Your task to perform on an android device: Turn on the flashlight Image 0: 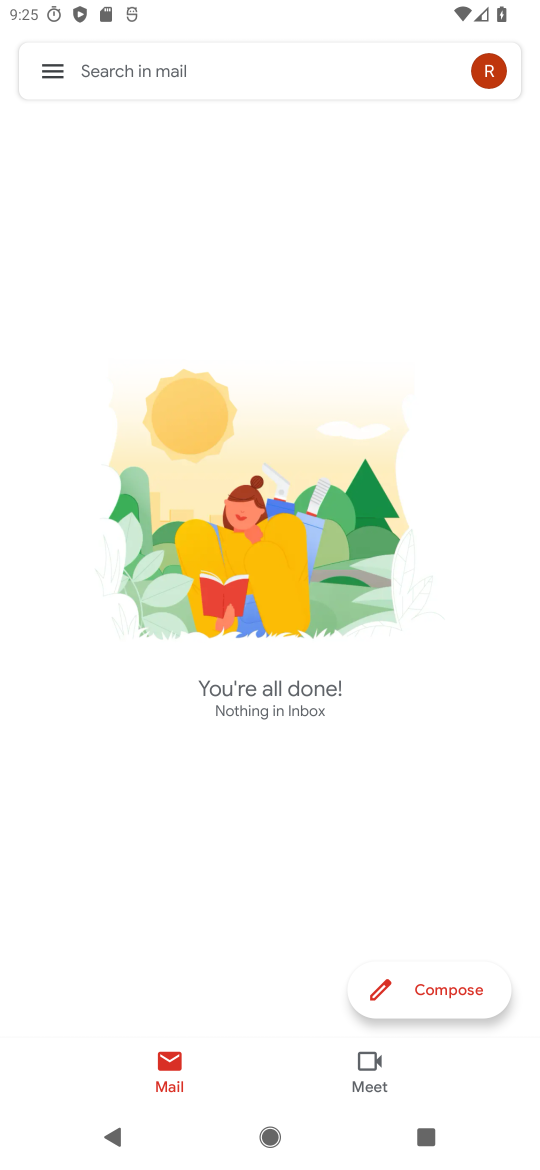
Step 0: press home button
Your task to perform on an android device: Turn on the flashlight Image 1: 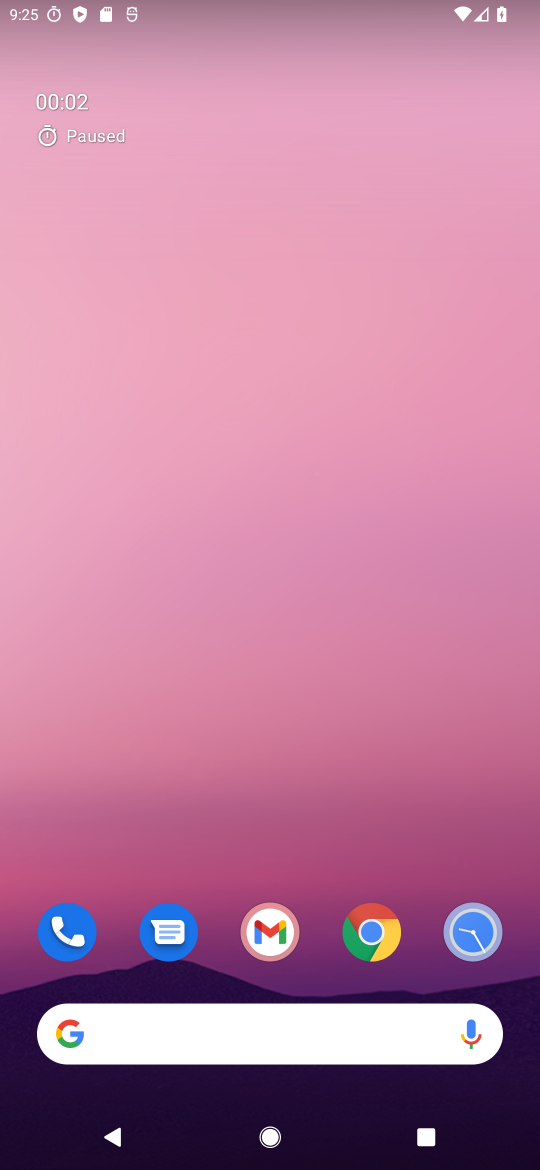
Step 1: drag from (259, 67) to (225, 702)
Your task to perform on an android device: Turn on the flashlight Image 2: 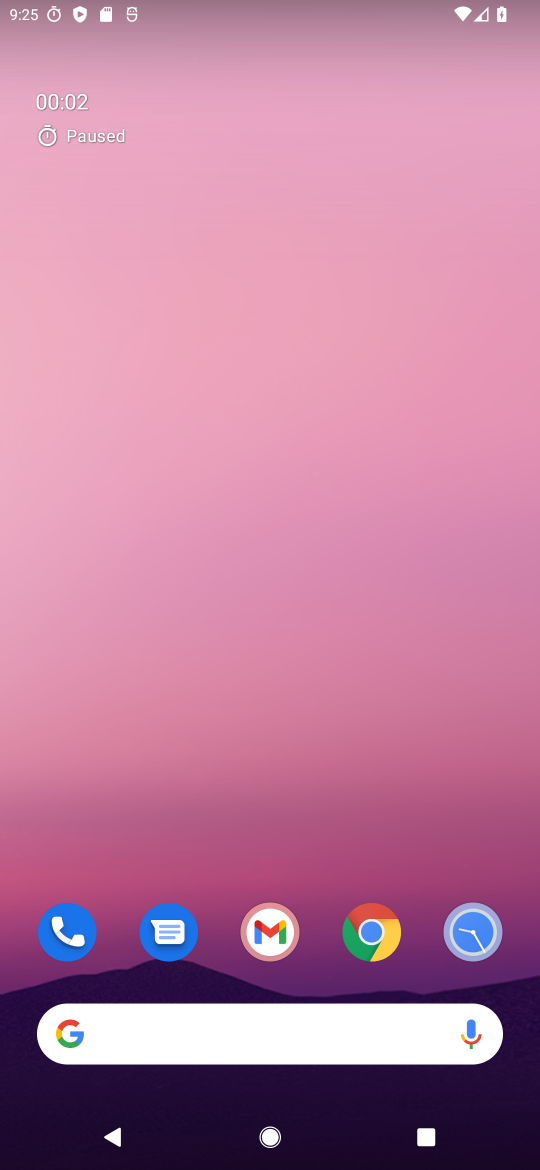
Step 2: drag from (267, 0) to (190, 797)
Your task to perform on an android device: Turn on the flashlight Image 3: 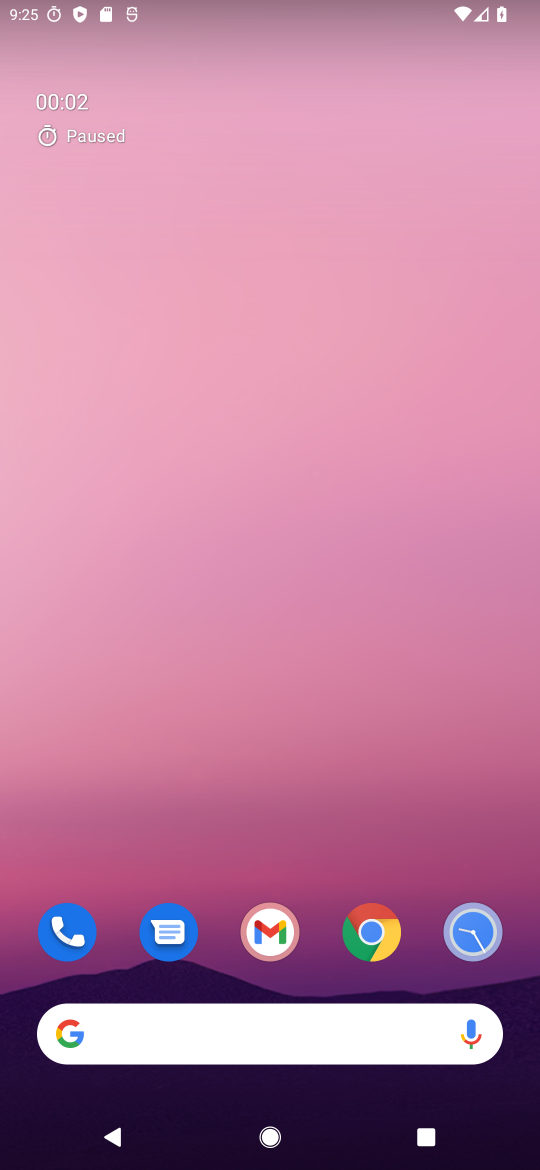
Step 3: drag from (176, 2) to (205, 683)
Your task to perform on an android device: Turn on the flashlight Image 4: 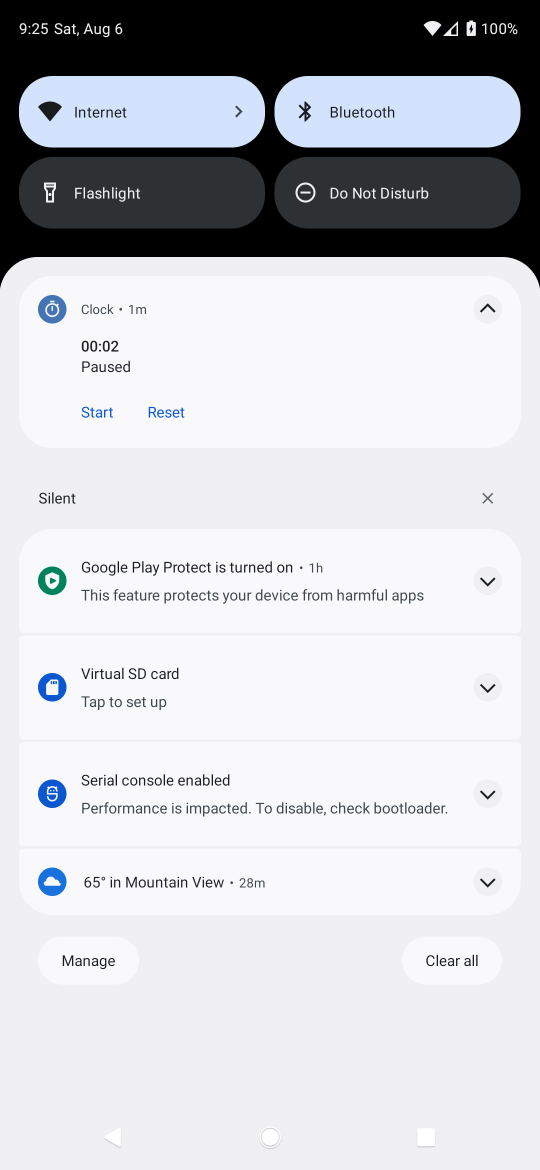
Step 4: click (100, 190)
Your task to perform on an android device: Turn on the flashlight Image 5: 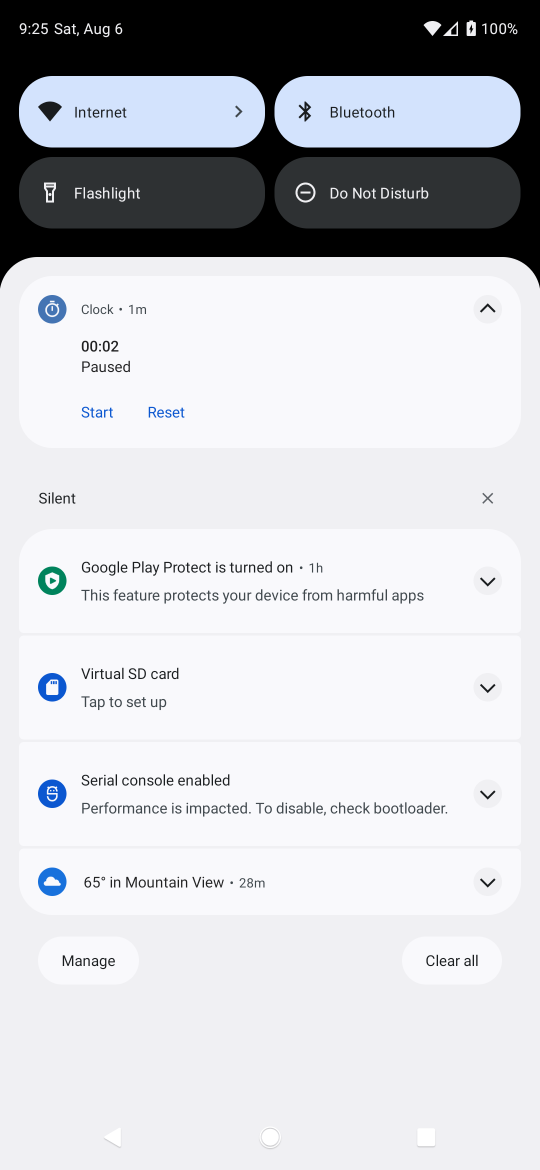
Step 5: task complete